Your task to perform on an android device: turn on data saver in the chrome app Image 0: 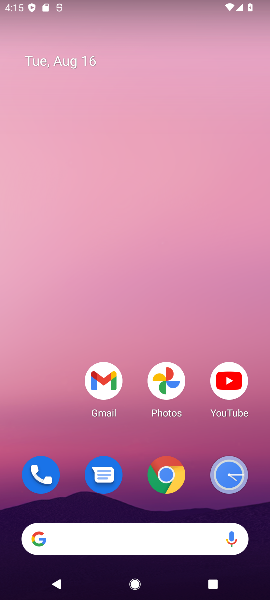
Step 0: drag from (199, 508) to (117, 11)
Your task to perform on an android device: turn on data saver in the chrome app Image 1: 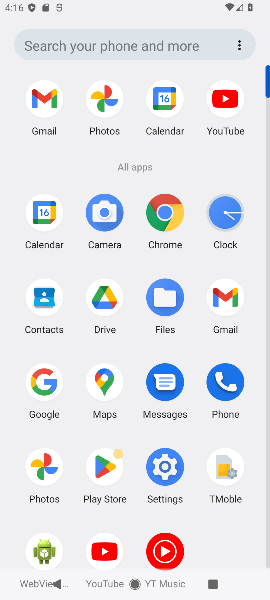
Step 1: click (166, 212)
Your task to perform on an android device: turn on data saver in the chrome app Image 2: 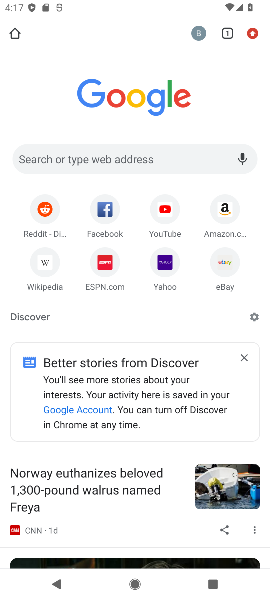
Step 2: click (249, 31)
Your task to perform on an android device: turn on data saver in the chrome app Image 3: 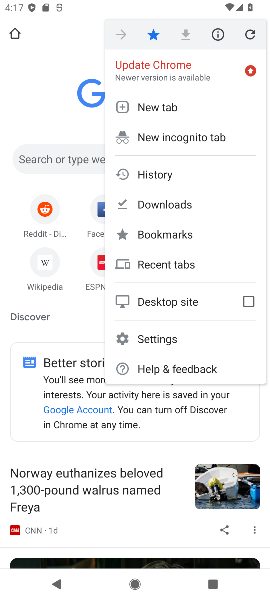
Step 3: click (166, 336)
Your task to perform on an android device: turn on data saver in the chrome app Image 4: 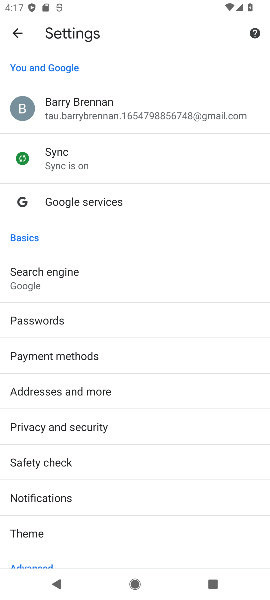
Step 4: drag from (122, 544) to (81, 60)
Your task to perform on an android device: turn on data saver in the chrome app Image 5: 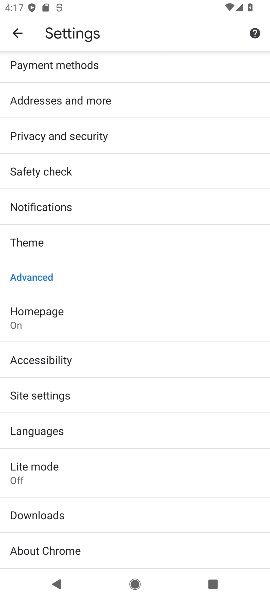
Step 5: click (73, 468)
Your task to perform on an android device: turn on data saver in the chrome app Image 6: 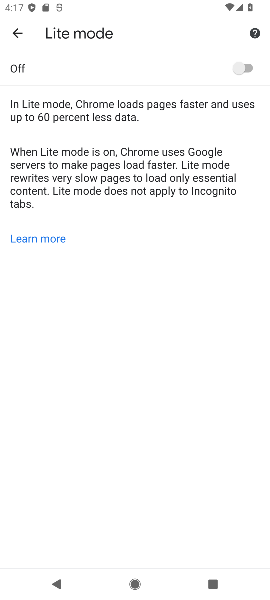
Step 6: click (231, 72)
Your task to perform on an android device: turn on data saver in the chrome app Image 7: 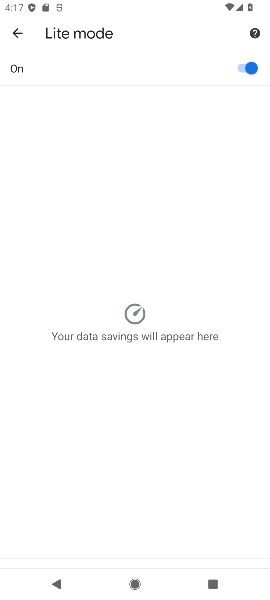
Step 7: task complete